Your task to perform on an android device: Open Youtube and go to the subscriptions tab Image 0: 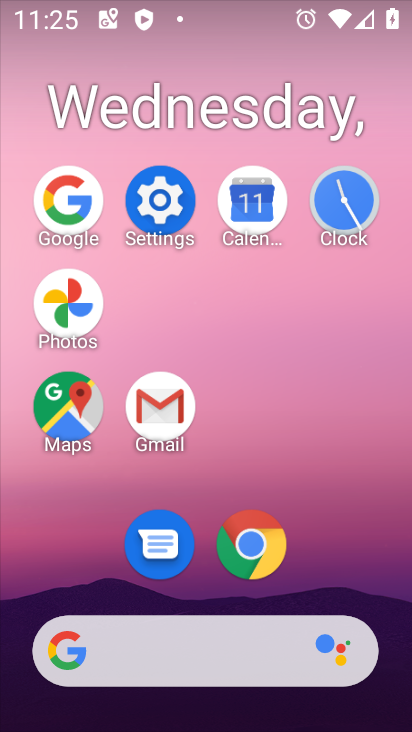
Step 0: drag from (343, 388) to (346, 72)
Your task to perform on an android device: Open Youtube and go to the subscriptions tab Image 1: 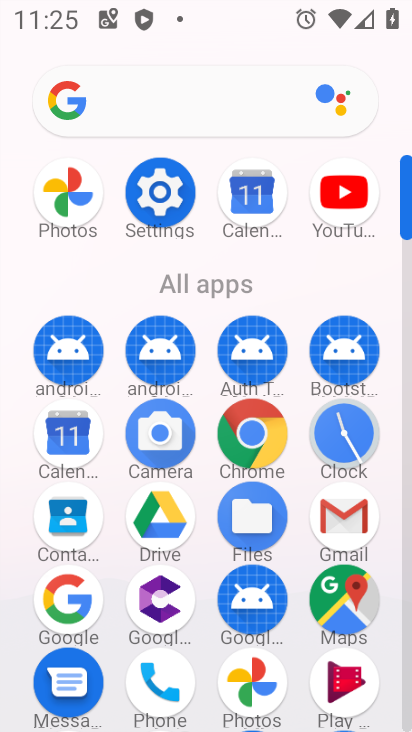
Step 1: click (339, 185)
Your task to perform on an android device: Open Youtube and go to the subscriptions tab Image 2: 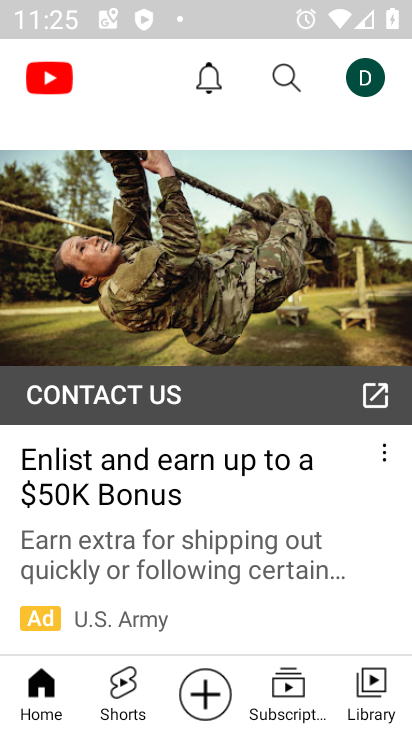
Step 2: click (295, 686)
Your task to perform on an android device: Open Youtube and go to the subscriptions tab Image 3: 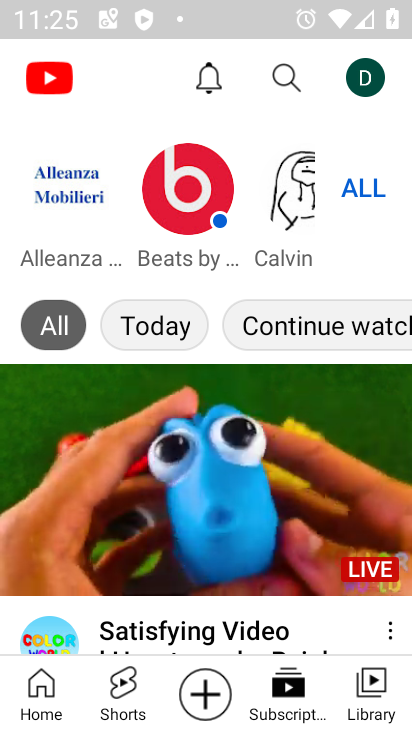
Step 3: task complete